Your task to perform on an android device: Empty the shopping cart on walmart.com. Search for "jbl flip 4" on walmart.com, select the first entry, and add it to the cart. Image 0: 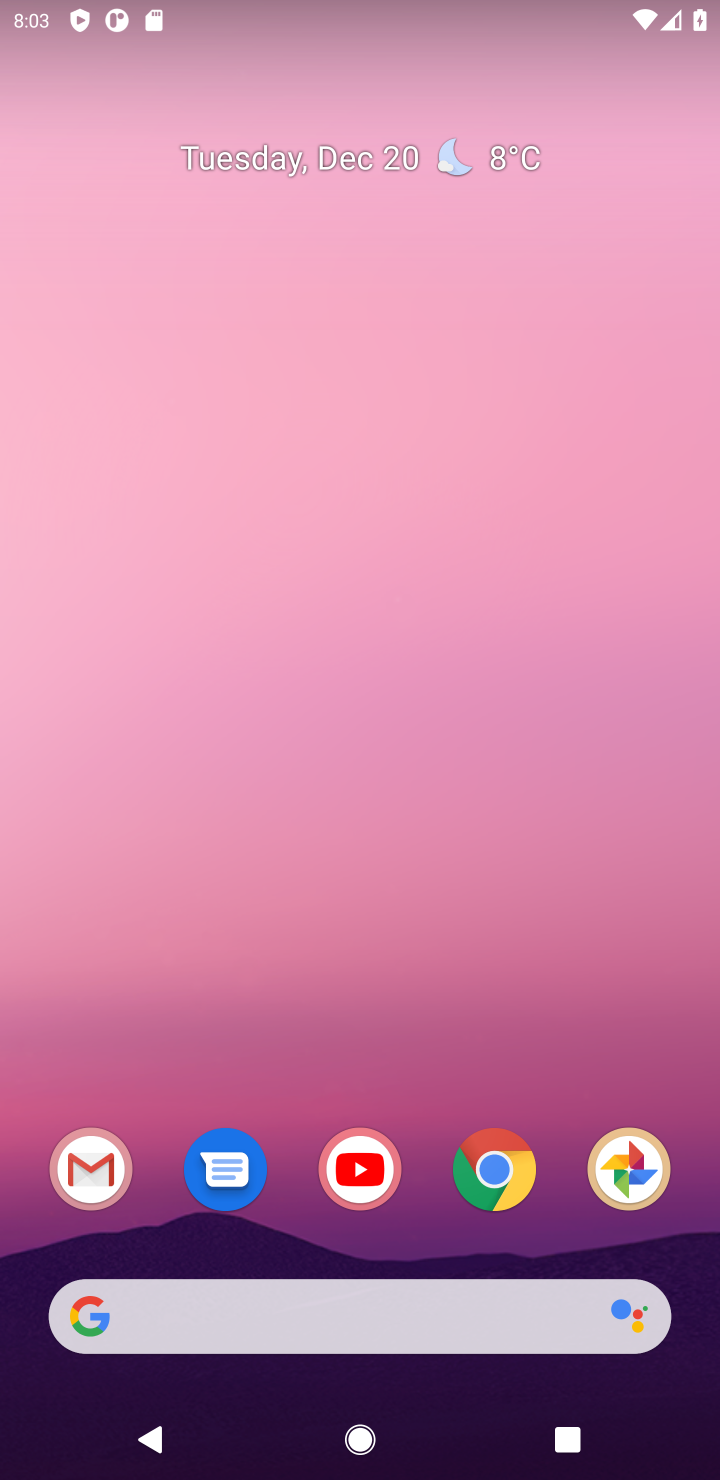
Step 0: click (497, 1161)
Your task to perform on an android device: Empty the shopping cart on walmart.com. Search for "jbl flip 4" on walmart.com, select the first entry, and add it to the cart. Image 1: 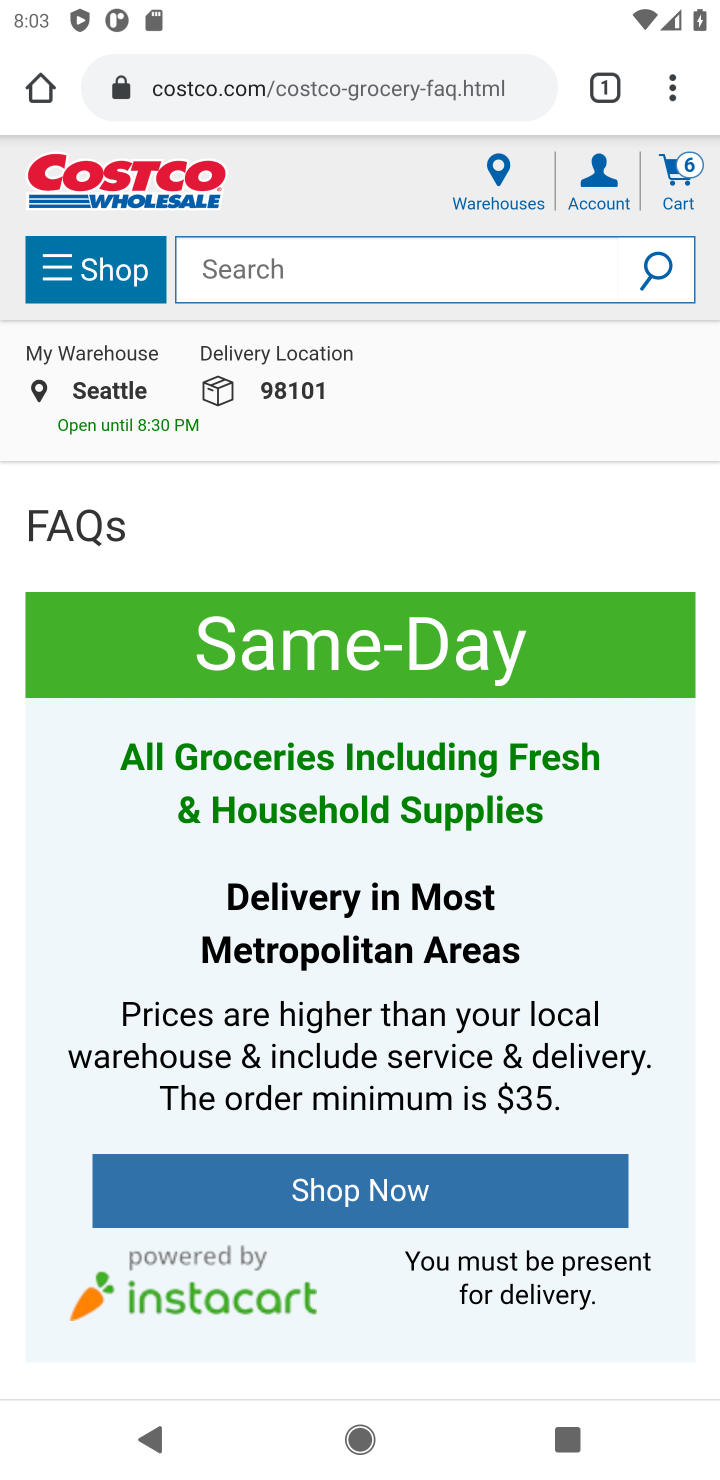
Step 1: click (306, 108)
Your task to perform on an android device: Empty the shopping cart on walmart.com. Search for "jbl flip 4" on walmart.com, select the first entry, and add it to the cart. Image 2: 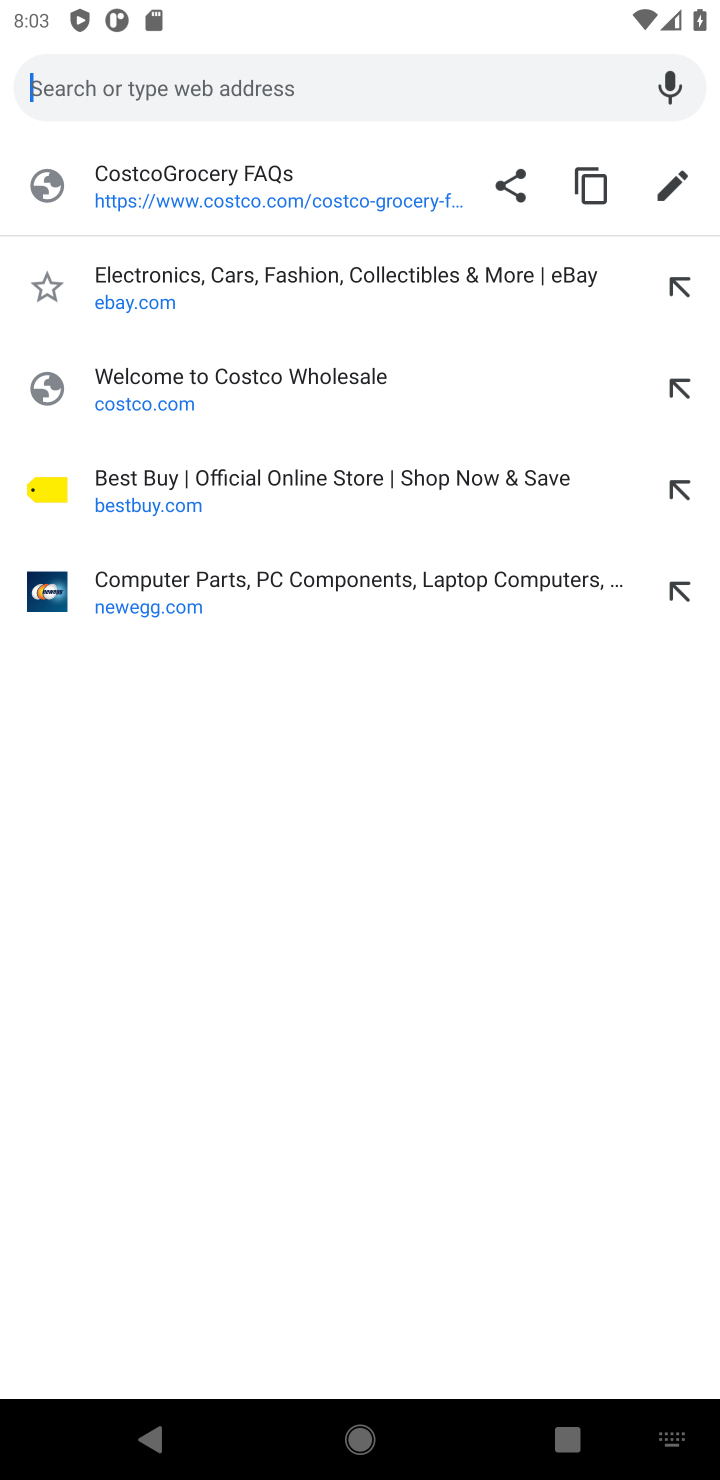
Step 2: type "walmart"
Your task to perform on an android device: Empty the shopping cart on walmart.com. Search for "jbl flip 4" on walmart.com, select the first entry, and add it to the cart. Image 3: 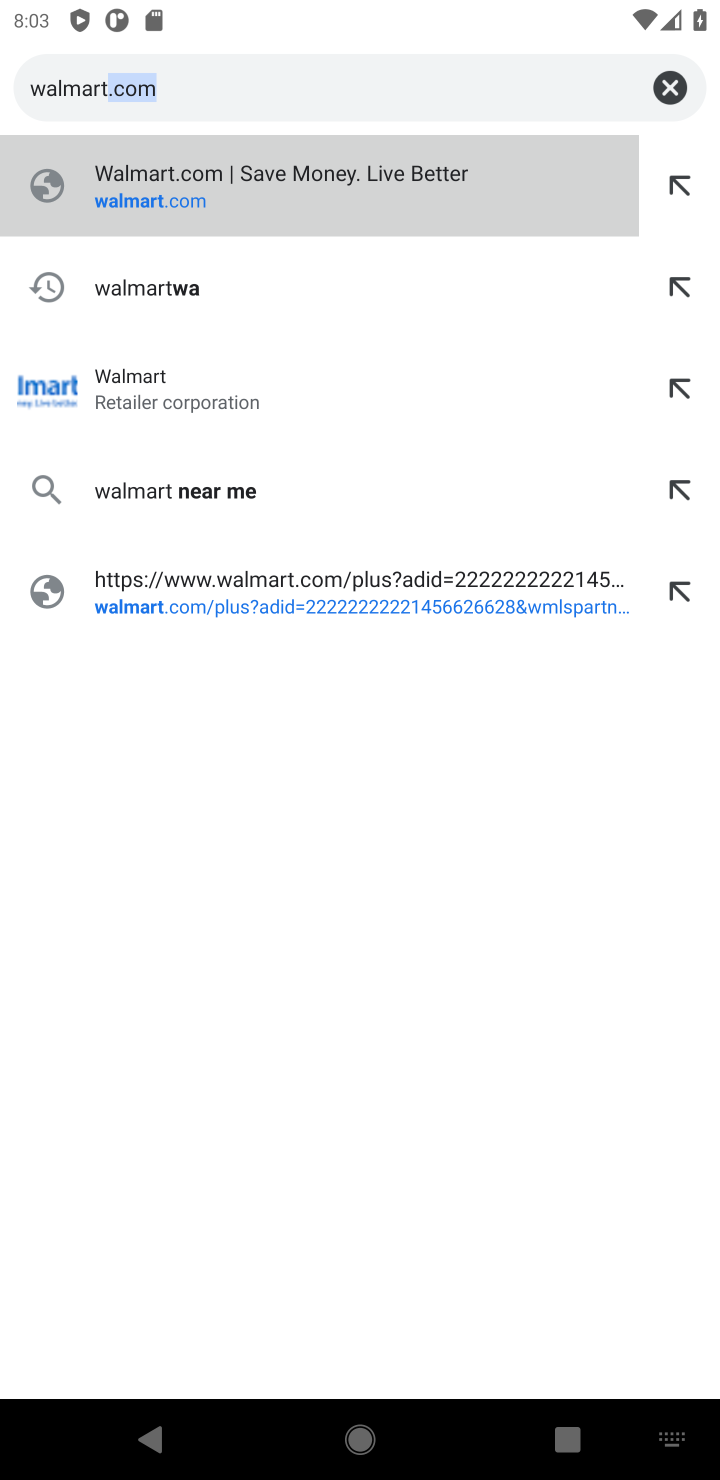
Step 3: click (263, 170)
Your task to perform on an android device: Empty the shopping cart on walmart.com. Search for "jbl flip 4" on walmart.com, select the first entry, and add it to the cart. Image 4: 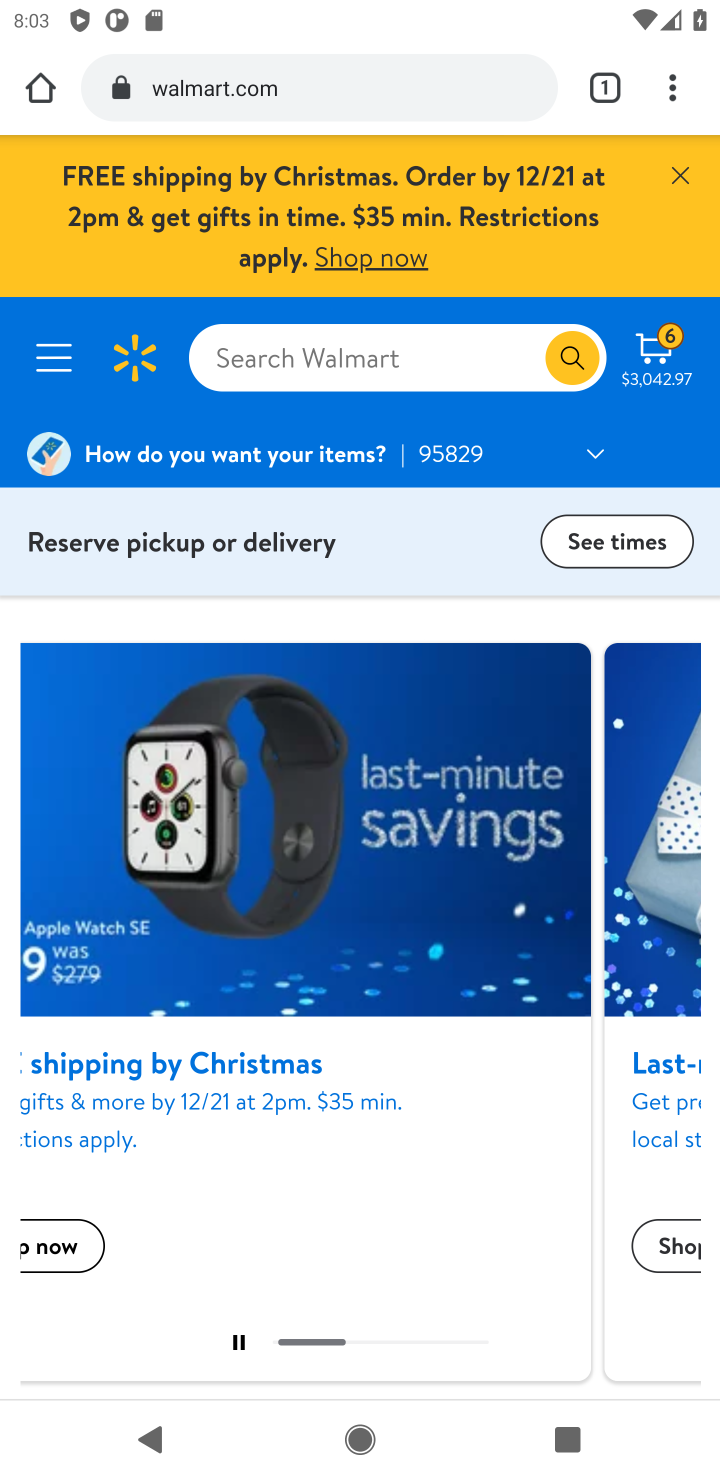
Step 4: click (323, 389)
Your task to perform on an android device: Empty the shopping cart on walmart.com. Search for "jbl flip 4" on walmart.com, select the first entry, and add it to the cart. Image 5: 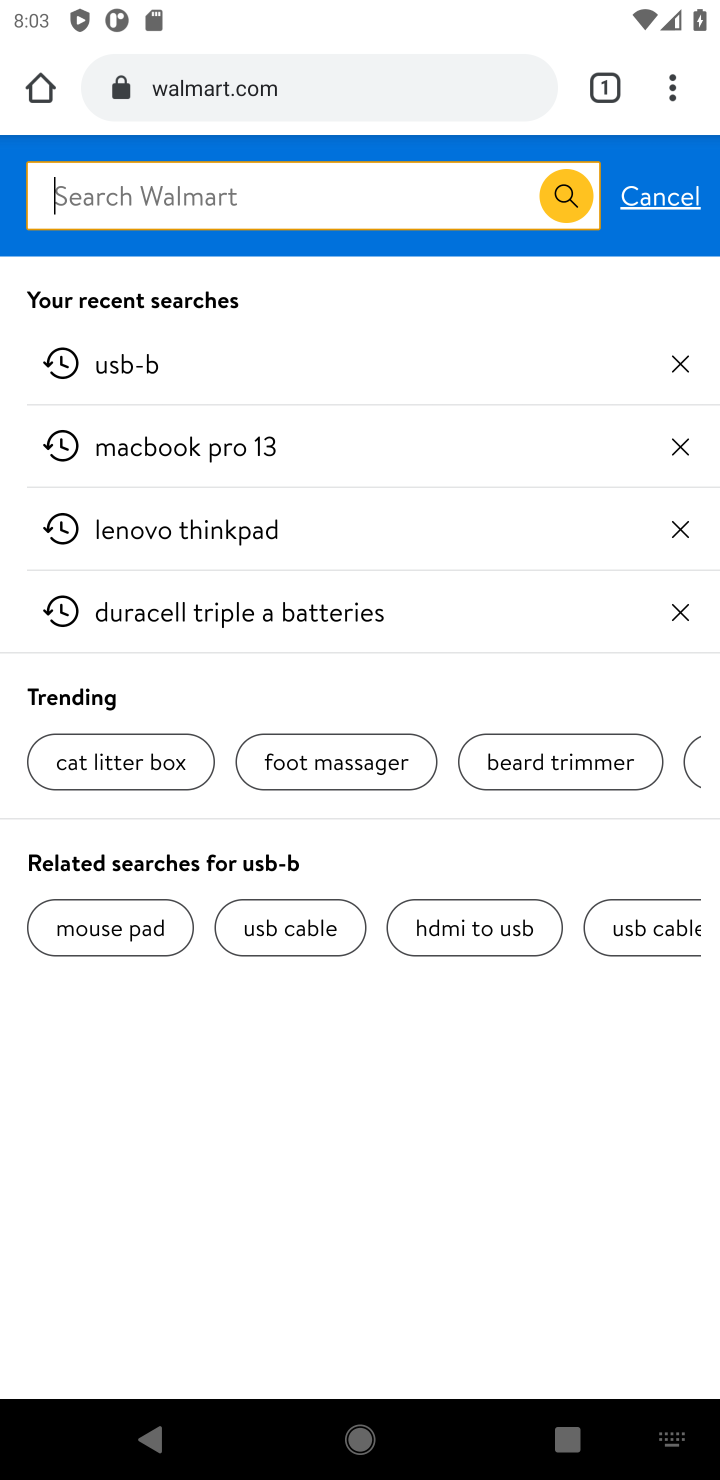
Step 5: task complete